Your task to perform on an android device: Open eBay Image 0: 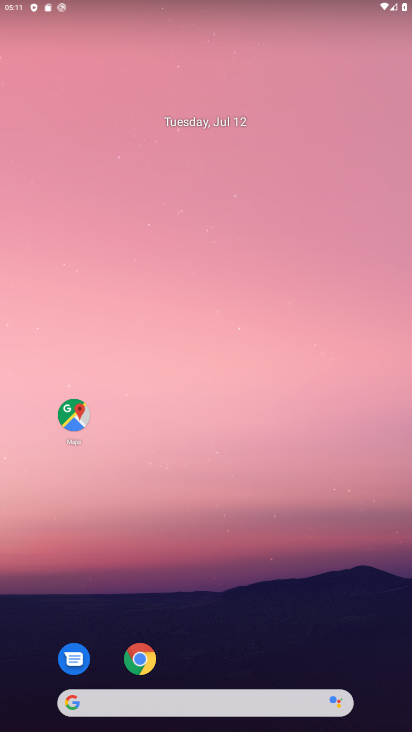
Step 0: click (140, 659)
Your task to perform on an android device: Open eBay Image 1: 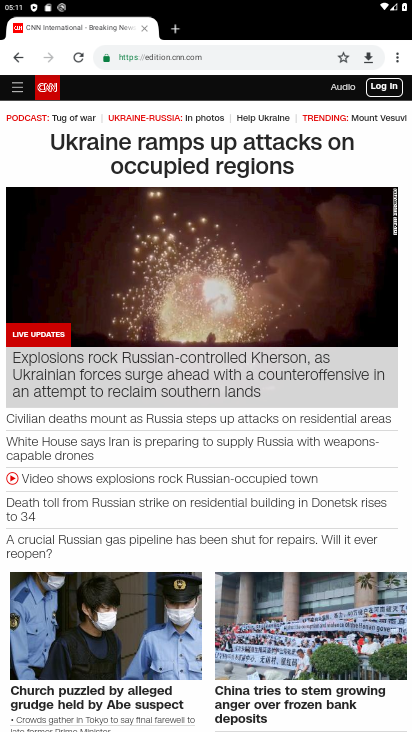
Step 1: click (232, 48)
Your task to perform on an android device: Open eBay Image 2: 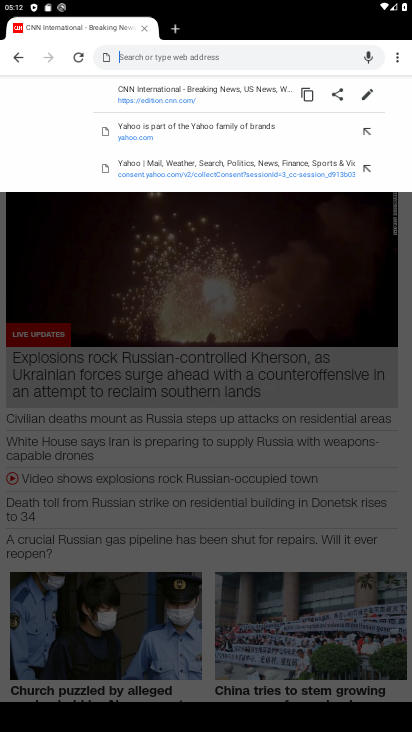
Step 2: type "eBay"
Your task to perform on an android device: Open eBay Image 3: 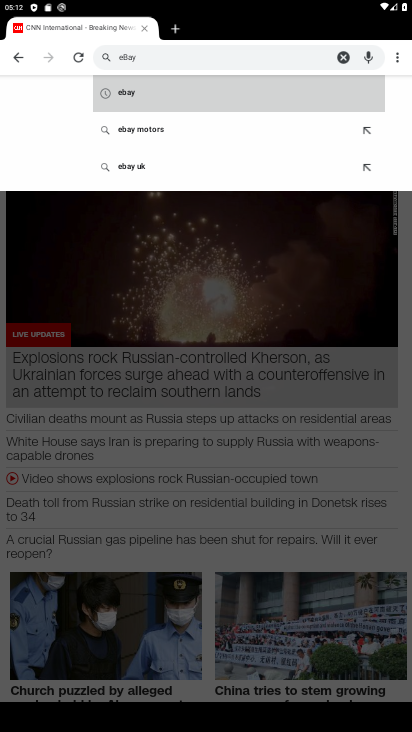
Step 3: click (123, 95)
Your task to perform on an android device: Open eBay Image 4: 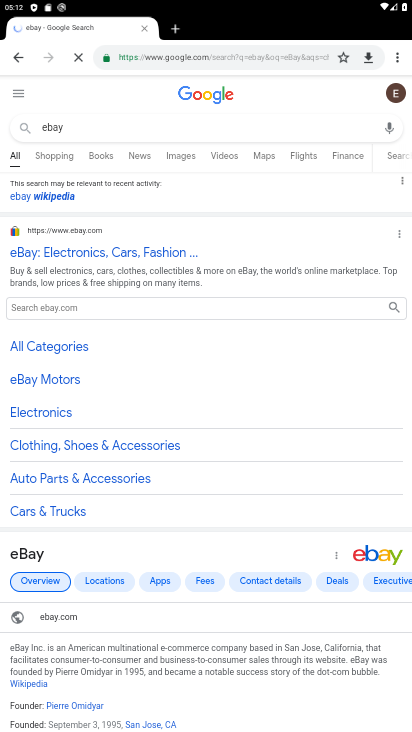
Step 4: click (49, 248)
Your task to perform on an android device: Open eBay Image 5: 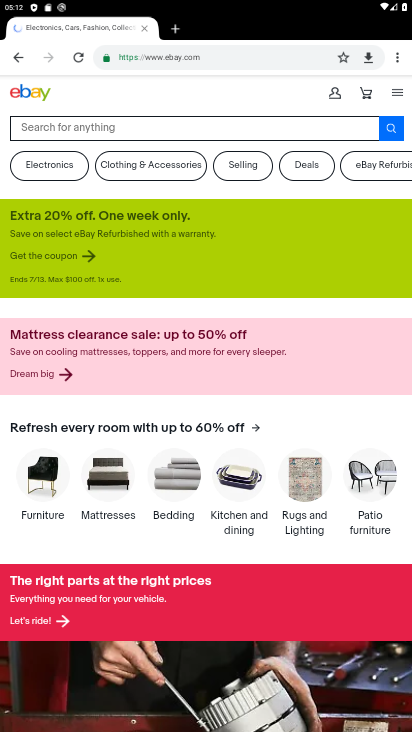
Step 5: task complete